Your task to perform on an android device: Open ESPN.com Image 0: 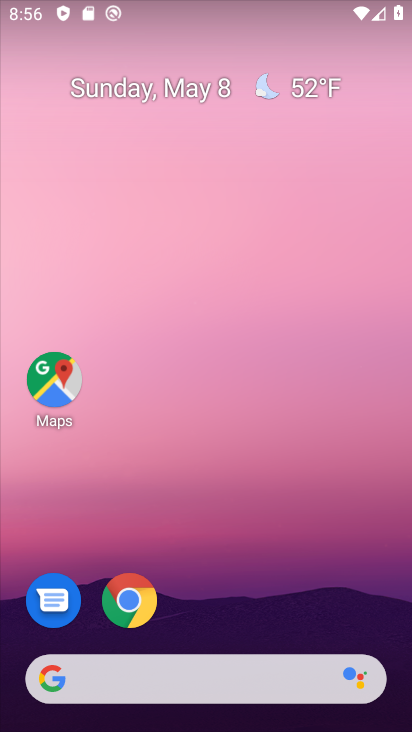
Step 0: click (112, 598)
Your task to perform on an android device: Open ESPN.com Image 1: 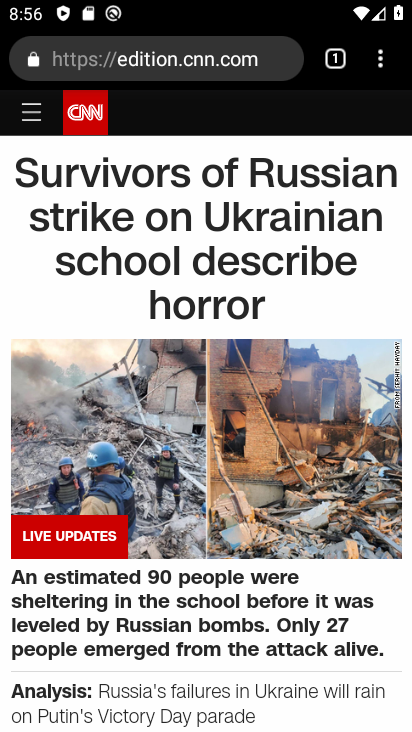
Step 1: click (190, 63)
Your task to perform on an android device: Open ESPN.com Image 2: 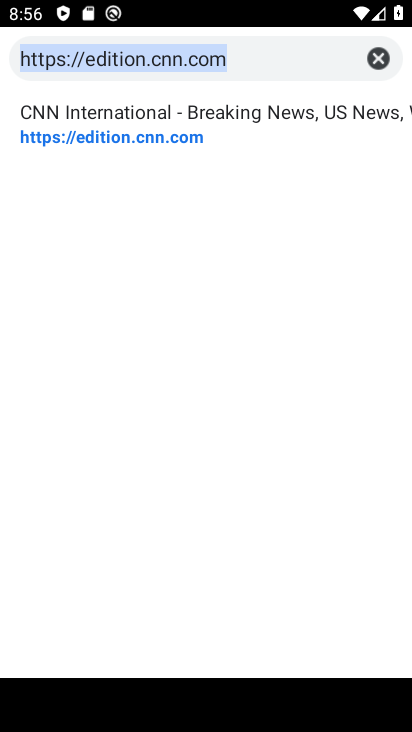
Step 2: type "ESPN.com"
Your task to perform on an android device: Open ESPN.com Image 3: 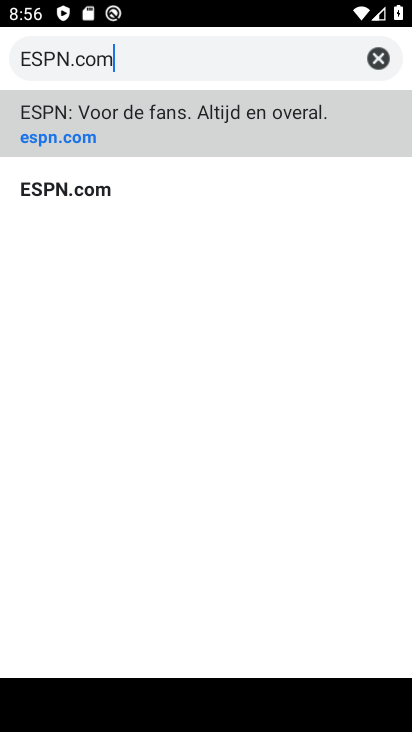
Step 3: click (39, 137)
Your task to perform on an android device: Open ESPN.com Image 4: 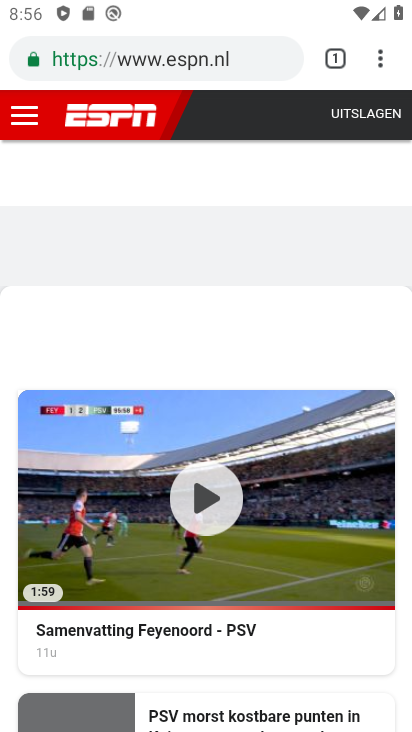
Step 4: task complete